Your task to perform on an android device: make emails show in primary in the gmail app Image 0: 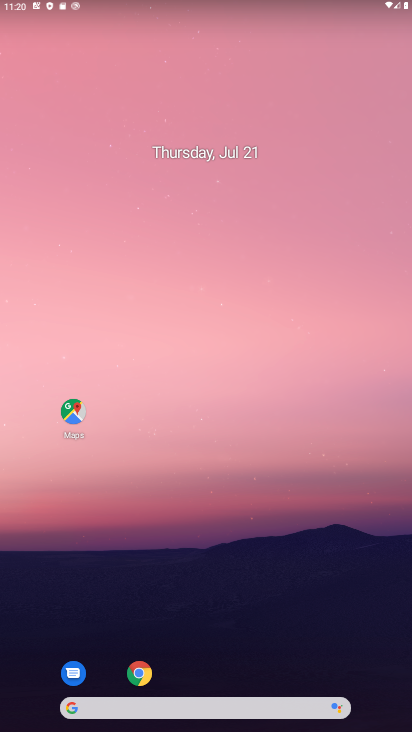
Step 0: drag from (205, 662) to (225, 238)
Your task to perform on an android device: make emails show in primary in the gmail app Image 1: 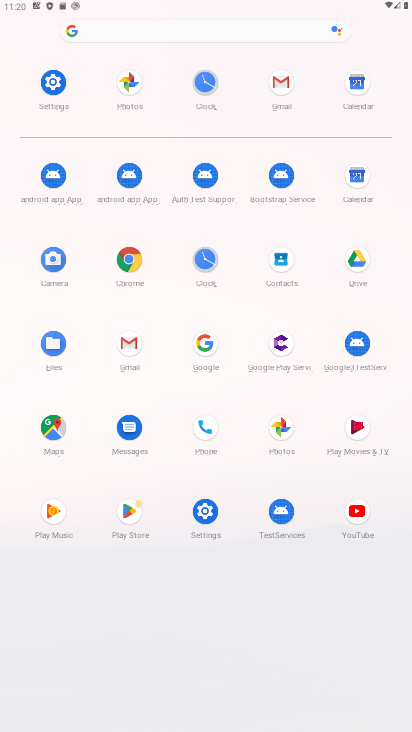
Step 1: click (278, 87)
Your task to perform on an android device: make emails show in primary in the gmail app Image 2: 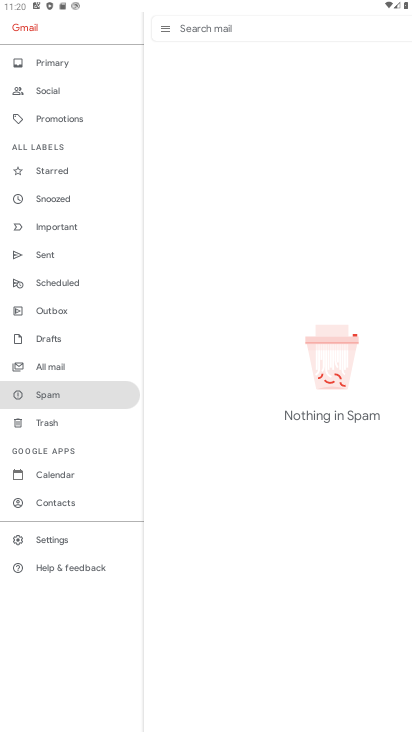
Step 2: click (73, 537)
Your task to perform on an android device: make emails show in primary in the gmail app Image 3: 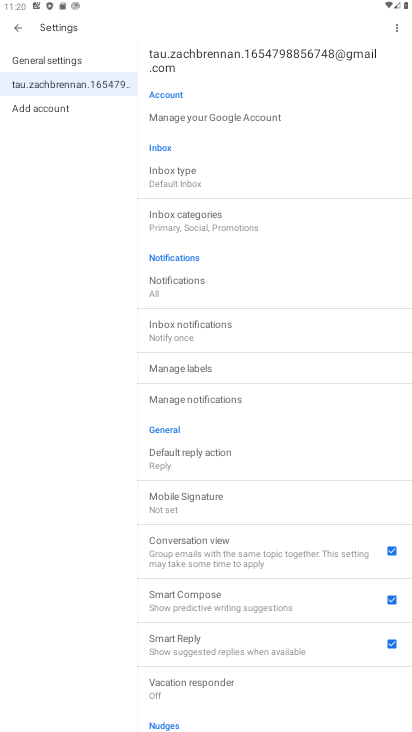
Step 3: click (222, 189)
Your task to perform on an android device: make emails show in primary in the gmail app Image 4: 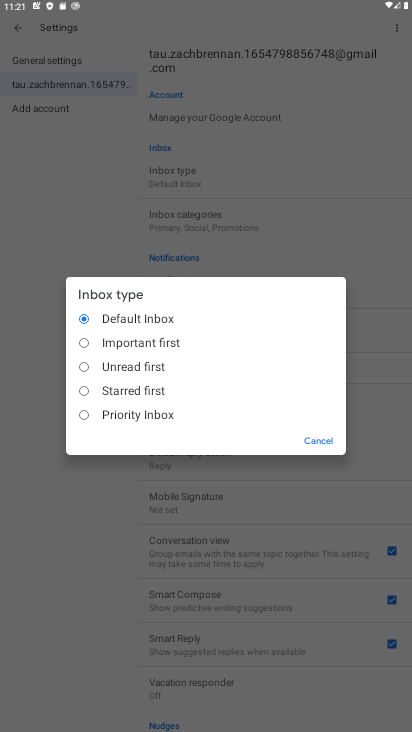
Step 4: task complete